Your task to perform on an android device: Go to Android settings Image 0: 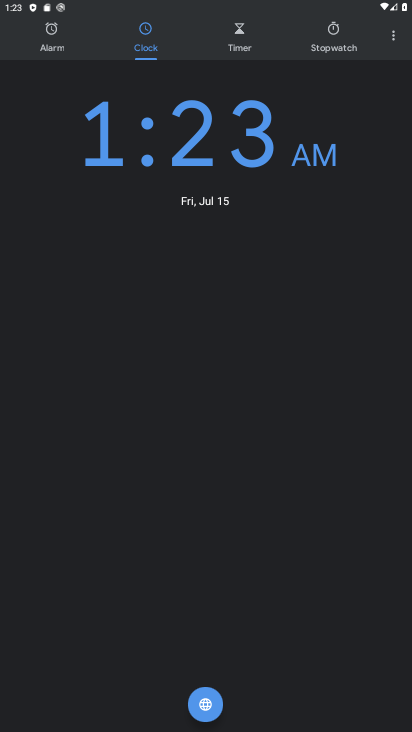
Step 0: press home button
Your task to perform on an android device: Go to Android settings Image 1: 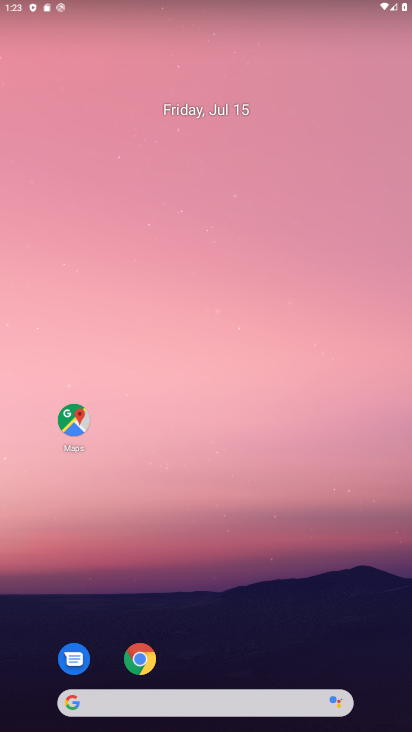
Step 1: drag from (214, 570) to (228, 227)
Your task to perform on an android device: Go to Android settings Image 2: 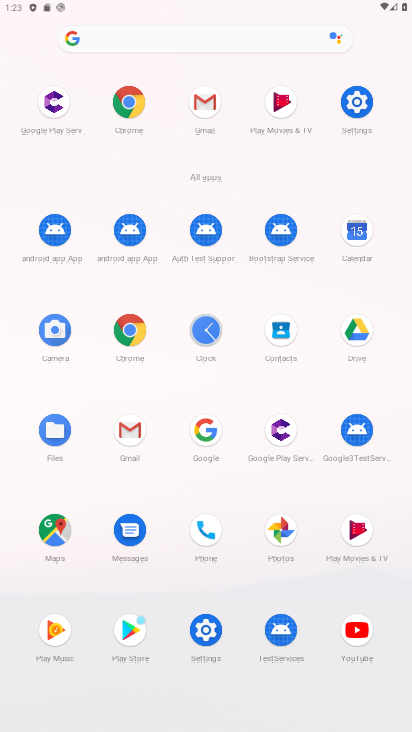
Step 2: click (213, 636)
Your task to perform on an android device: Go to Android settings Image 3: 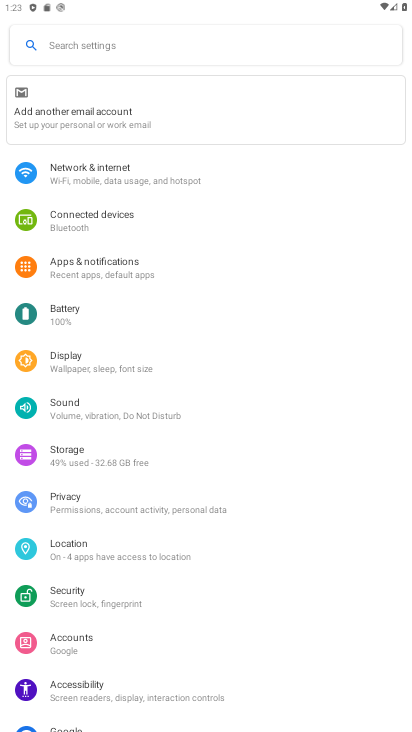
Step 3: task complete